Your task to perform on an android device: Go to calendar. Show me events next week Image 0: 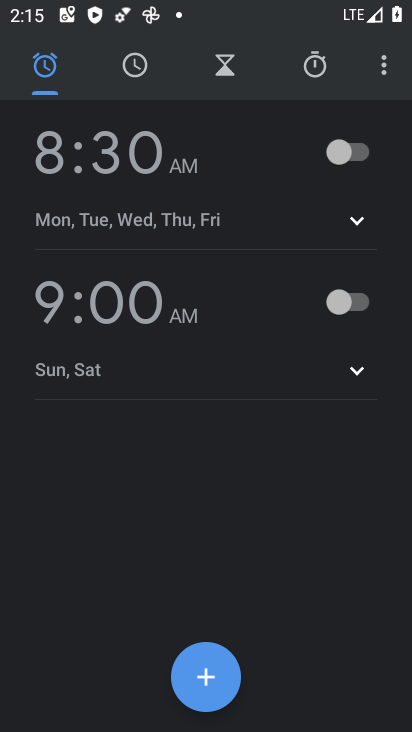
Step 0: press home button
Your task to perform on an android device: Go to calendar. Show me events next week Image 1: 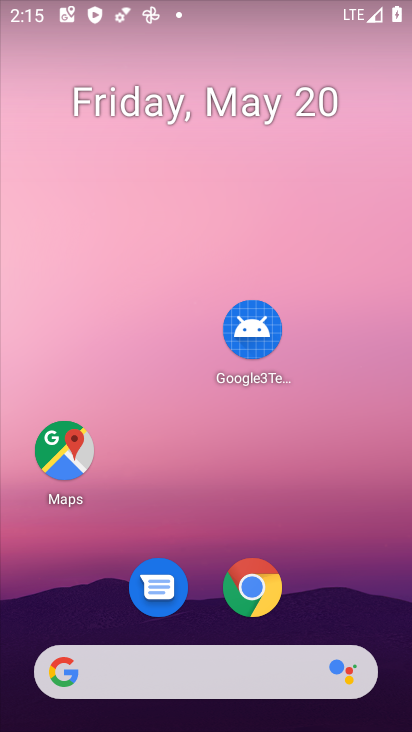
Step 1: drag from (289, 458) to (246, 98)
Your task to perform on an android device: Go to calendar. Show me events next week Image 2: 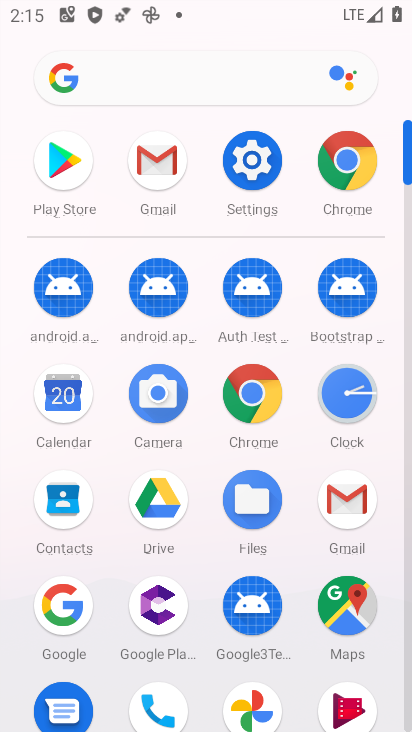
Step 2: click (60, 396)
Your task to perform on an android device: Go to calendar. Show me events next week Image 3: 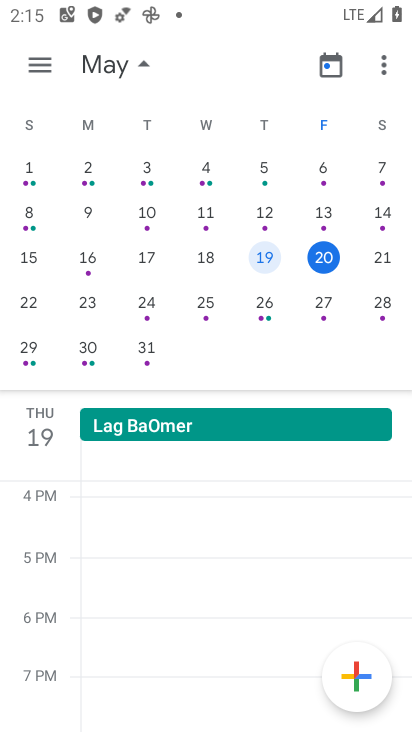
Step 3: click (43, 61)
Your task to perform on an android device: Go to calendar. Show me events next week Image 4: 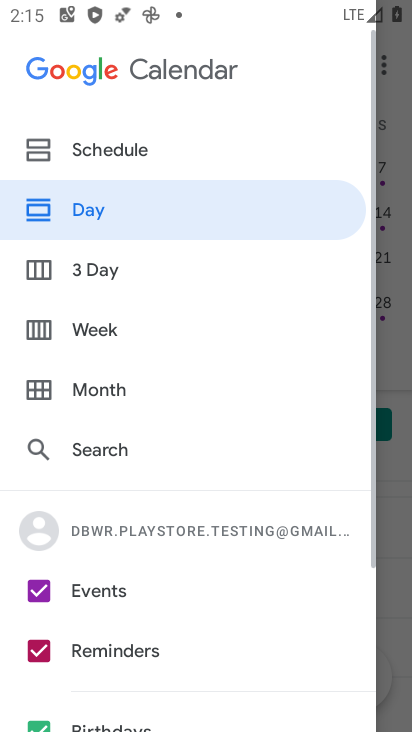
Step 4: click (41, 61)
Your task to perform on an android device: Go to calendar. Show me events next week Image 5: 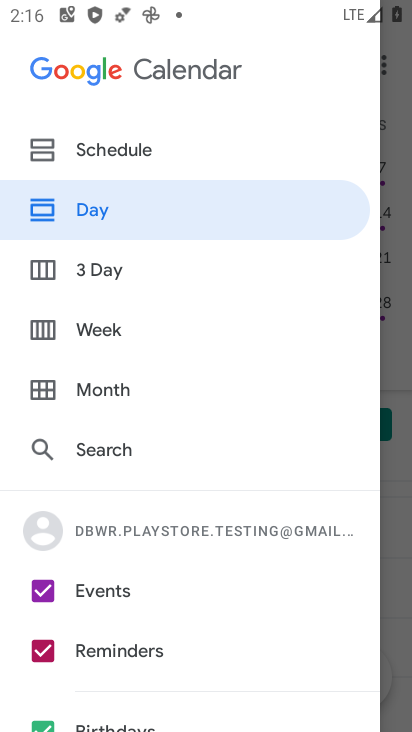
Step 5: click (92, 325)
Your task to perform on an android device: Go to calendar. Show me events next week Image 6: 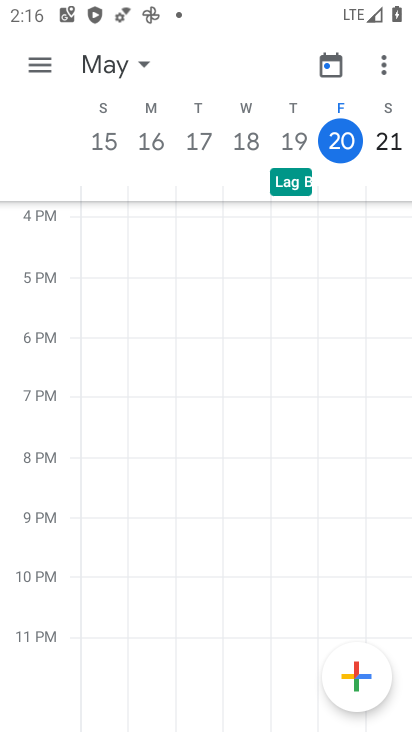
Step 6: click (142, 63)
Your task to perform on an android device: Go to calendar. Show me events next week Image 7: 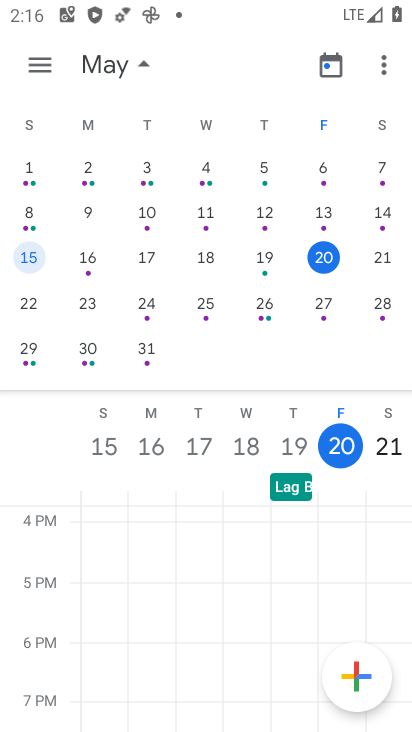
Step 7: click (150, 303)
Your task to perform on an android device: Go to calendar. Show me events next week Image 8: 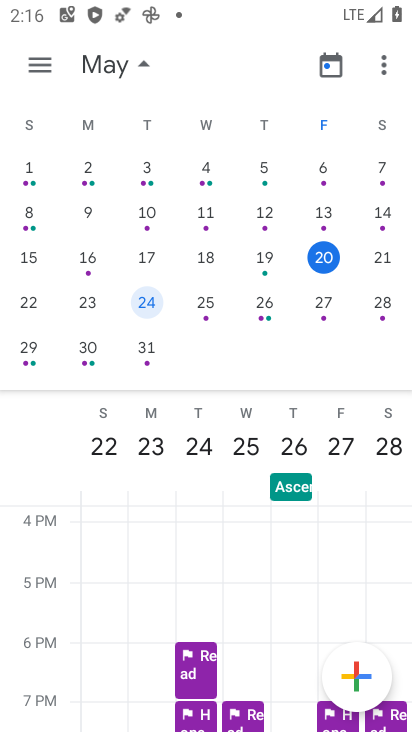
Step 8: task complete